Your task to perform on an android device: toggle wifi Image 0: 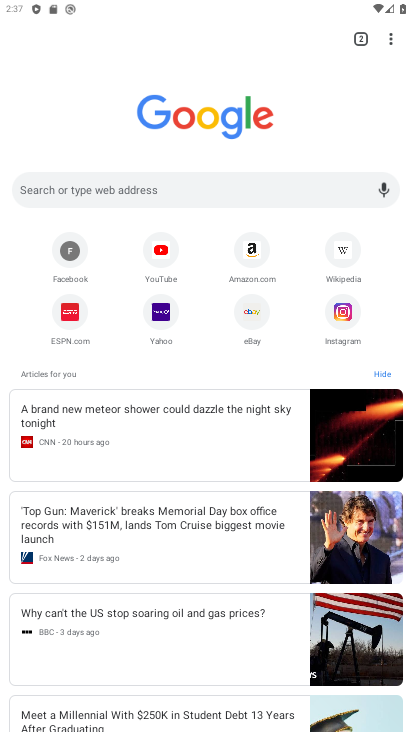
Step 0: press home button
Your task to perform on an android device: toggle wifi Image 1: 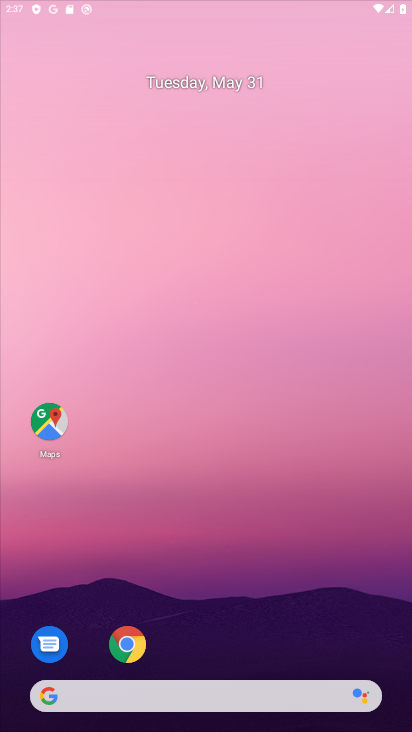
Step 1: drag from (166, 5) to (120, 579)
Your task to perform on an android device: toggle wifi Image 2: 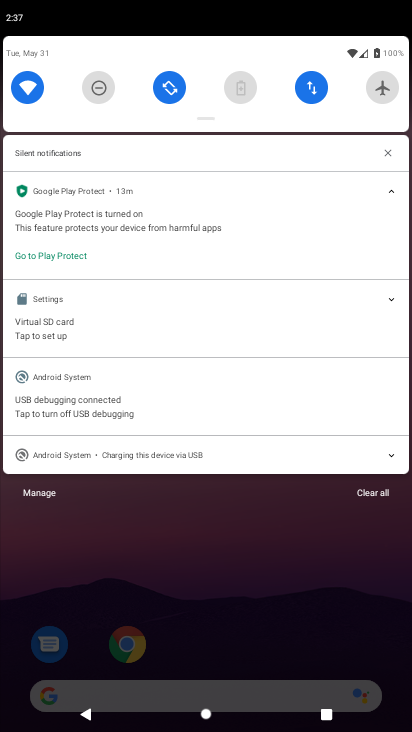
Step 2: click (29, 78)
Your task to perform on an android device: toggle wifi Image 3: 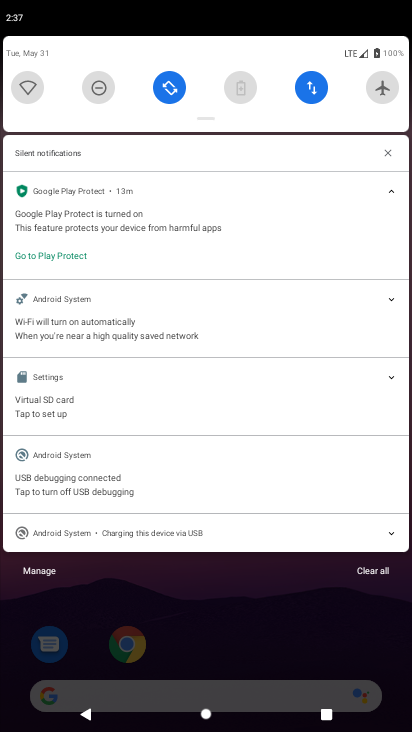
Step 3: click (311, 612)
Your task to perform on an android device: toggle wifi Image 4: 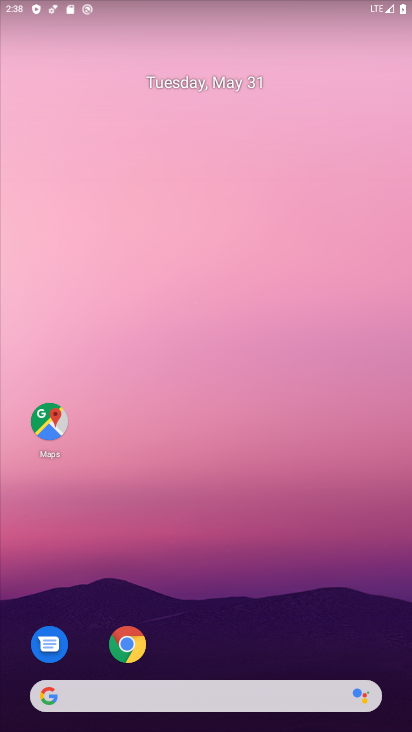
Step 4: task complete